Your task to perform on an android device: Go to Reddit.com Image 0: 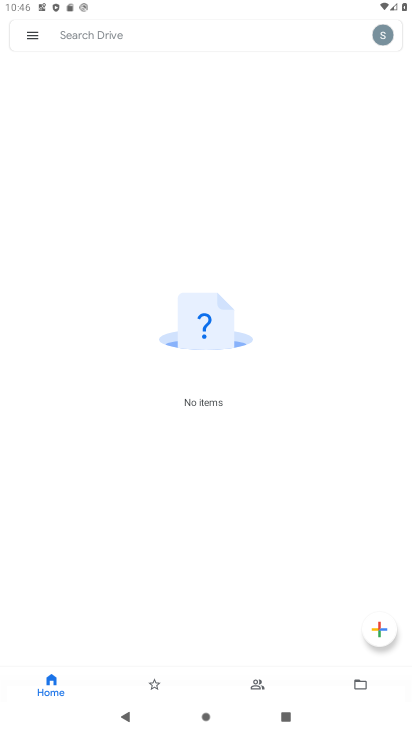
Step 0: press home button
Your task to perform on an android device: Go to Reddit.com Image 1: 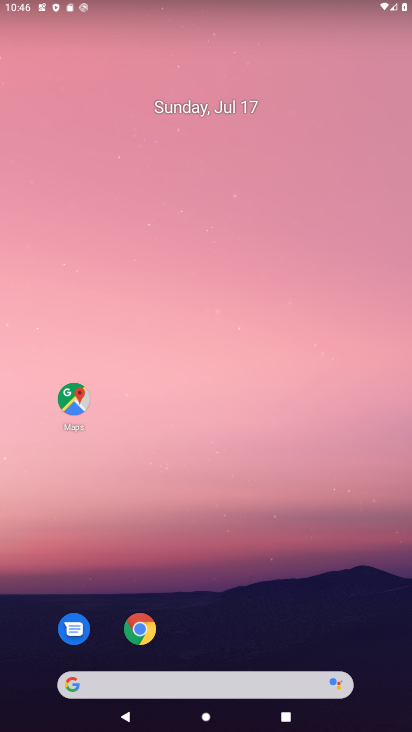
Step 1: click (147, 624)
Your task to perform on an android device: Go to Reddit.com Image 2: 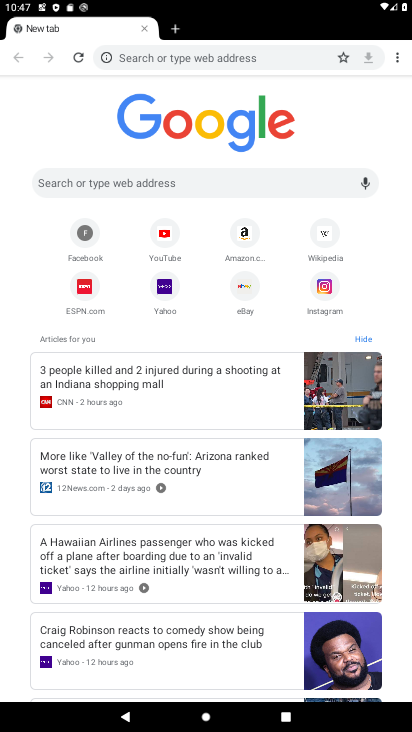
Step 2: click (169, 57)
Your task to perform on an android device: Go to Reddit.com Image 3: 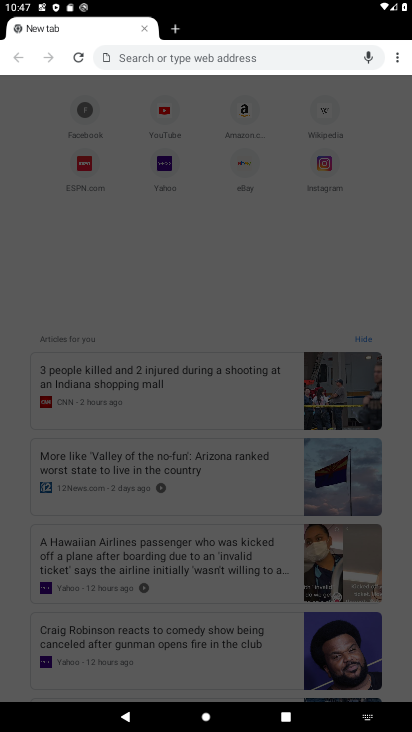
Step 3: type "Reddit.com"
Your task to perform on an android device: Go to Reddit.com Image 4: 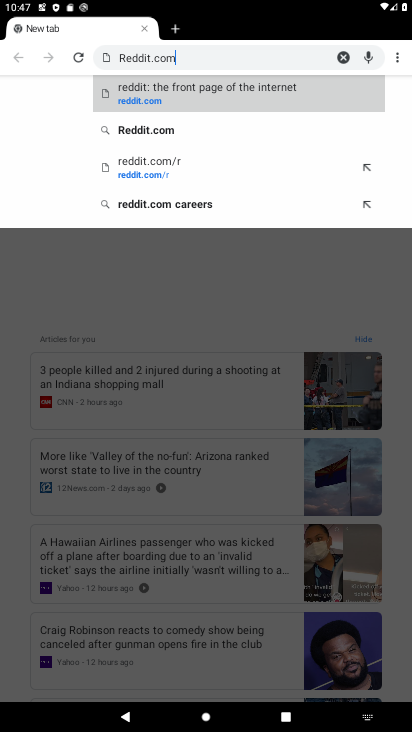
Step 4: click (280, 90)
Your task to perform on an android device: Go to Reddit.com Image 5: 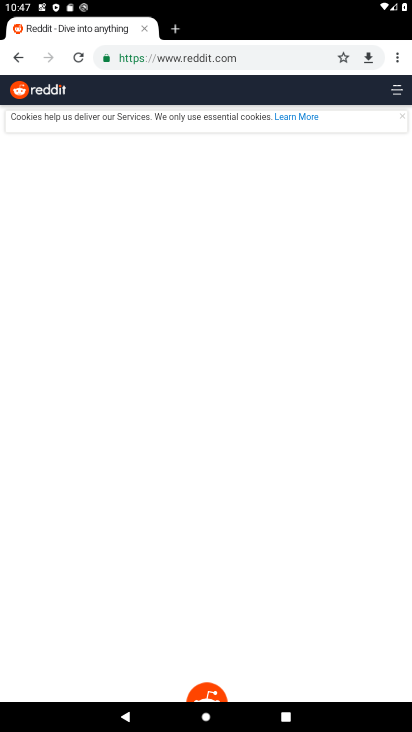
Step 5: task complete